Your task to perform on an android device: Open calendar and show me the first week of next month Image 0: 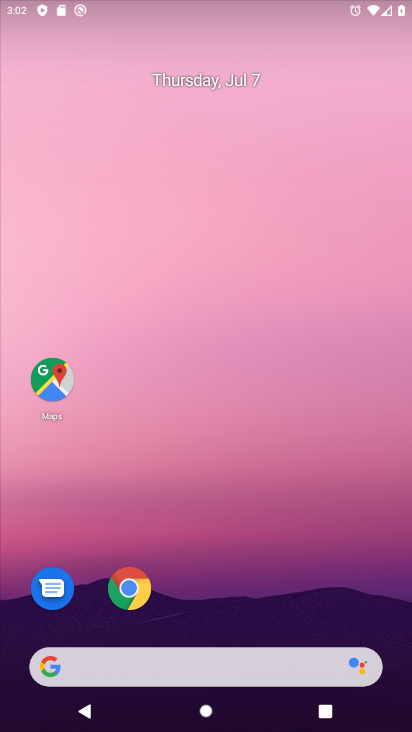
Step 0: drag from (195, 654) to (233, 204)
Your task to perform on an android device: Open calendar and show me the first week of next month Image 1: 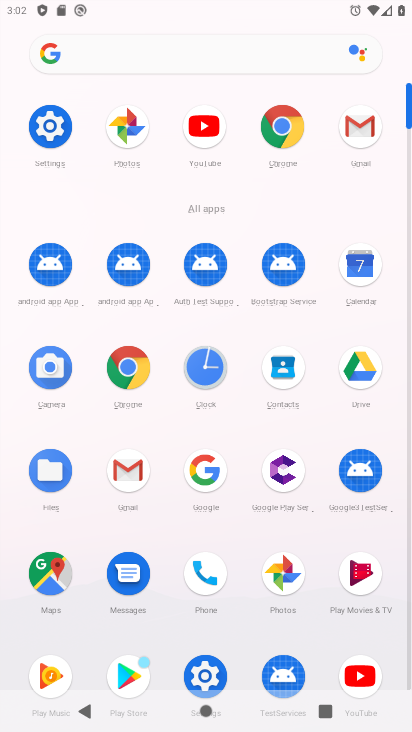
Step 1: click (357, 266)
Your task to perform on an android device: Open calendar and show me the first week of next month Image 2: 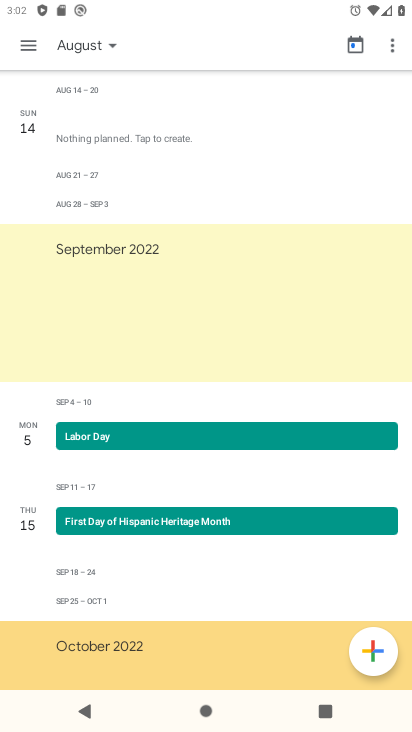
Step 2: drag from (111, 121) to (135, 446)
Your task to perform on an android device: Open calendar and show me the first week of next month Image 3: 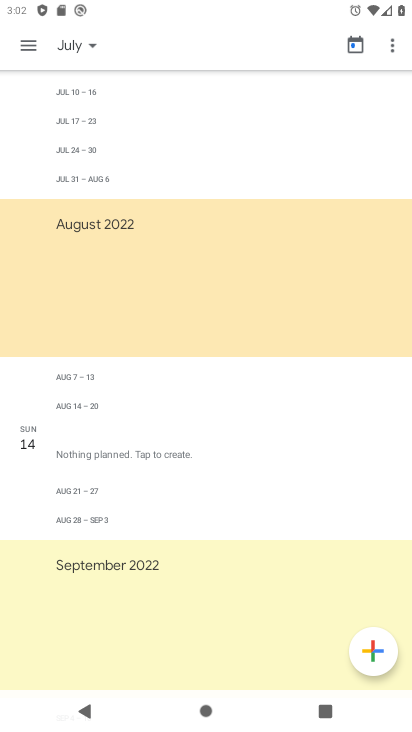
Step 3: click (69, 44)
Your task to perform on an android device: Open calendar and show me the first week of next month Image 4: 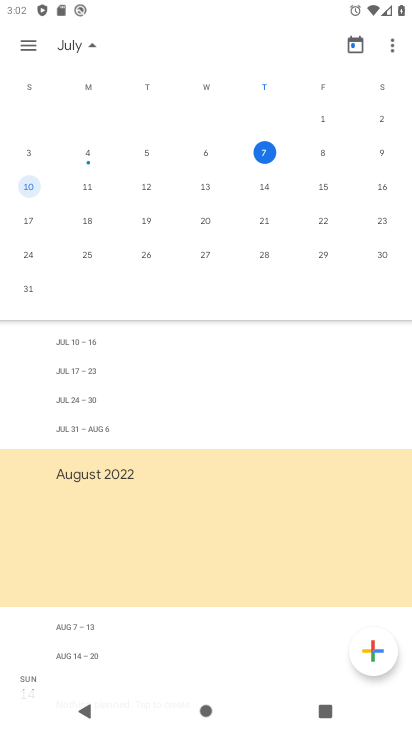
Step 4: drag from (388, 211) to (15, 211)
Your task to perform on an android device: Open calendar and show me the first week of next month Image 5: 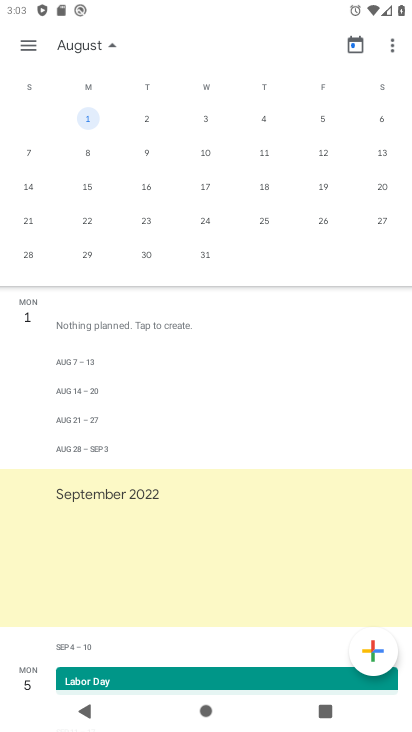
Step 5: click (69, 364)
Your task to perform on an android device: Open calendar and show me the first week of next month Image 6: 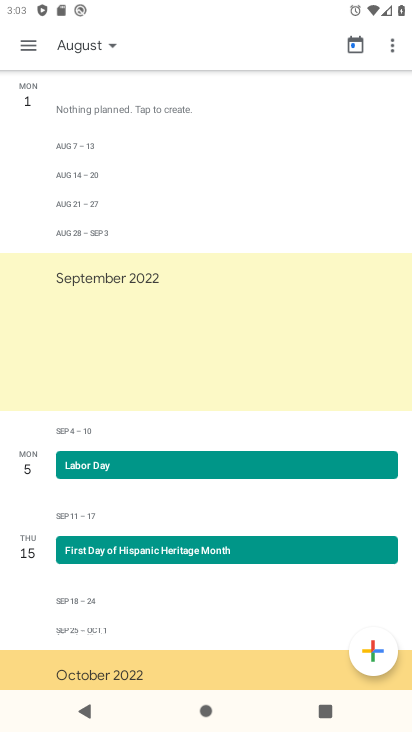
Step 6: task complete